Your task to perform on an android device: Open settings Image 0: 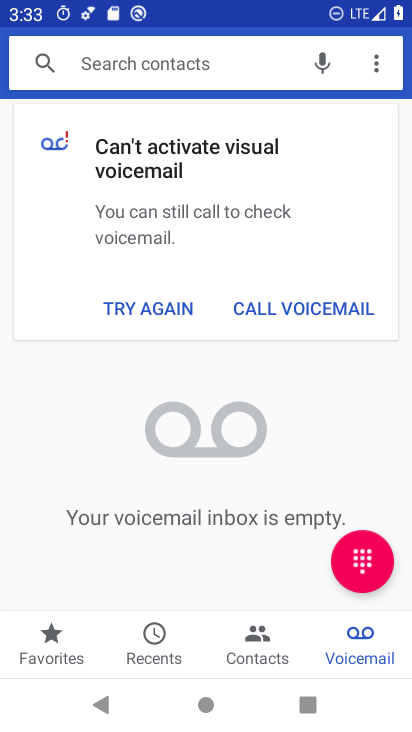
Step 0: press home button
Your task to perform on an android device: Open settings Image 1: 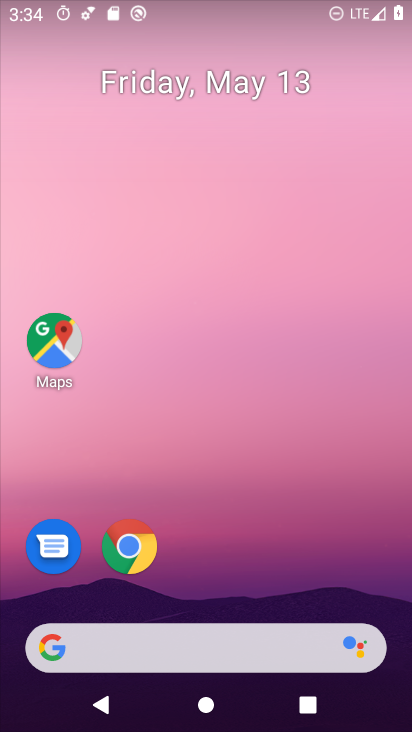
Step 1: drag from (181, 490) to (192, 329)
Your task to perform on an android device: Open settings Image 2: 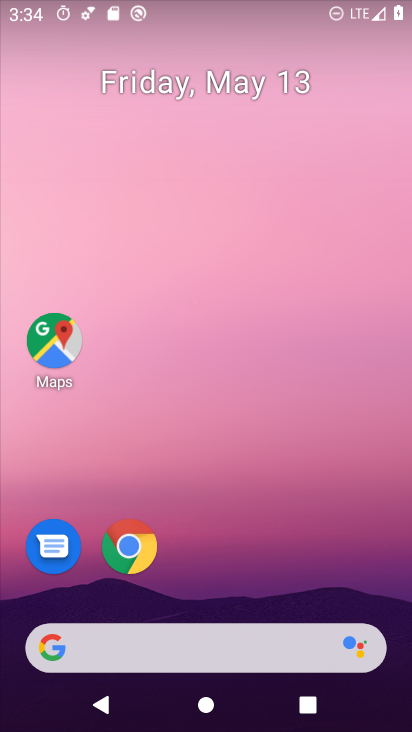
Step 2: drag from (294, 629) to (281, 51)
Your task to perform on an android device: Open settings Image 3: 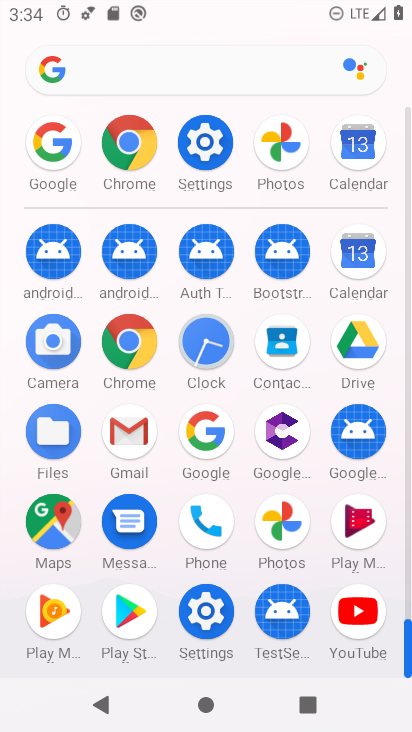
Step 3: click (210, 151)
Your task to perform on an android device: Open settings Image 4: 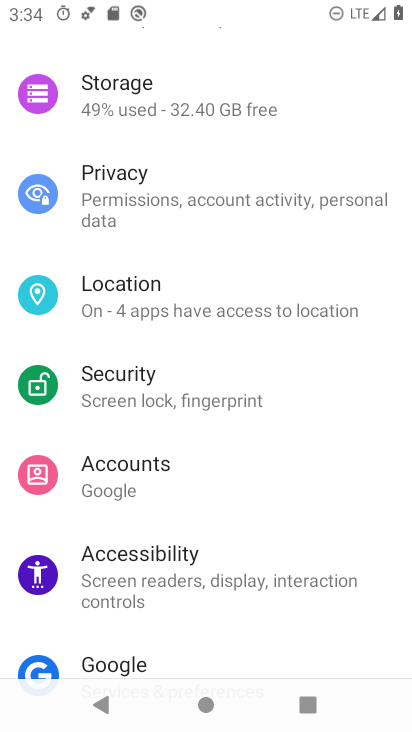
Step 4: task complete